Your task to perform on an android device: What's on my calendar today? Image 0: 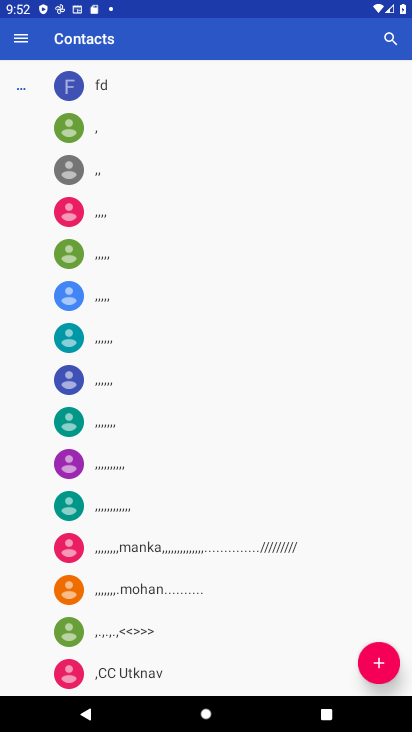
Step 0: press home button
Your task to perform on an android device: What's on my calendar today? Image 1: 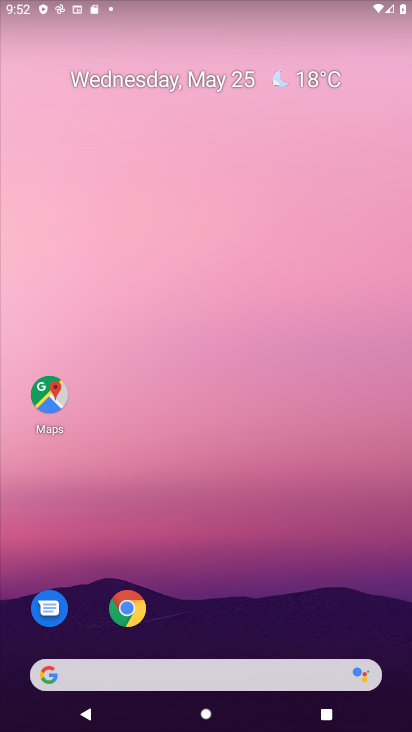
Step 1: click (190, 74)
Your task to perform on an android device: What's on my calendar today? Image 2: 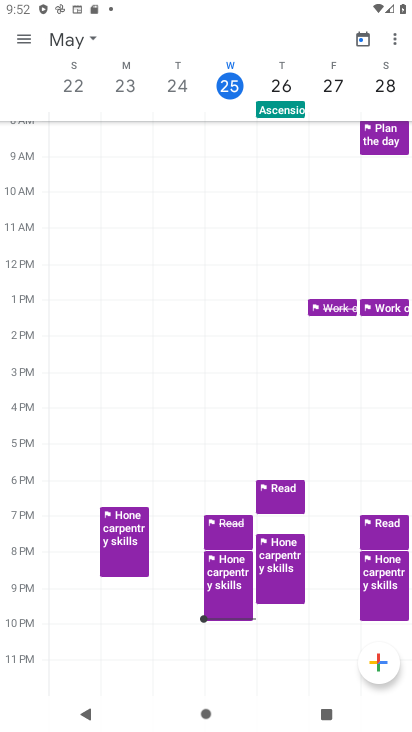
Step 2: task complete